Your task to perform on an android device: Go to Google maps Image 0: 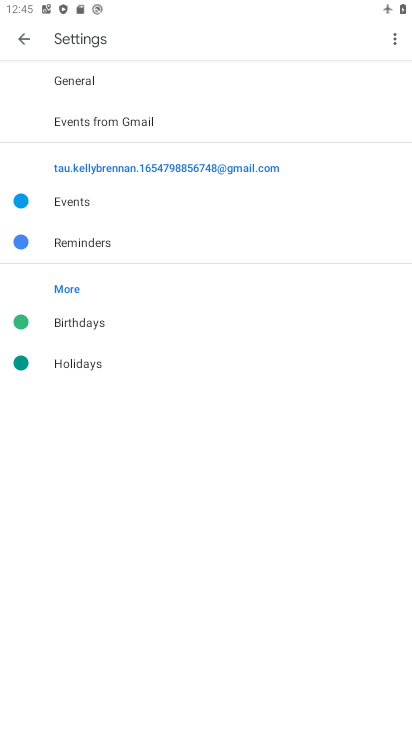
Step 0: press home button
Your task to perform on an android device: Go to Google maps Image 1: 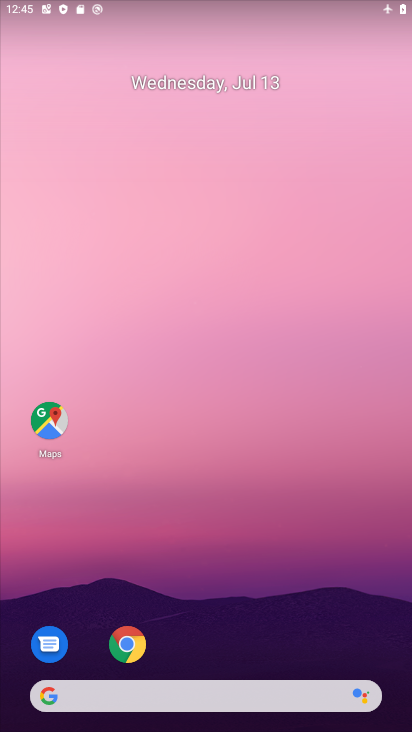
Step 1: drag from (262, 608) to (242, 153)
Your task to perform on an android device: Go to Google maps Image 2: 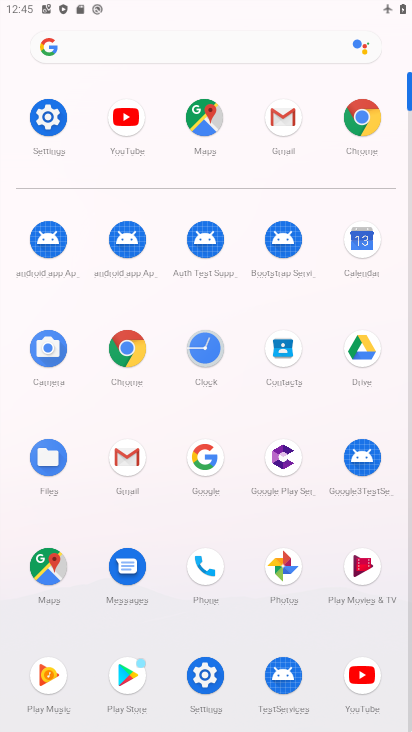
Step 2: click (49, 568)
Your task to perform on an android device: Go to Google maps Image 3: 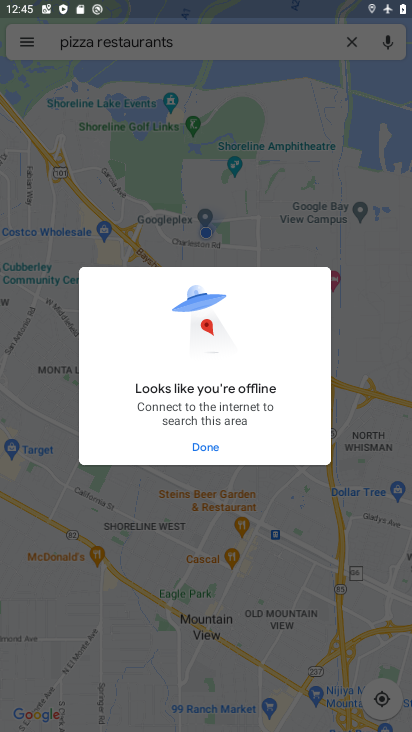
Step 3: task complete